Your task to perform on an android device: What's the weather? Image 0: 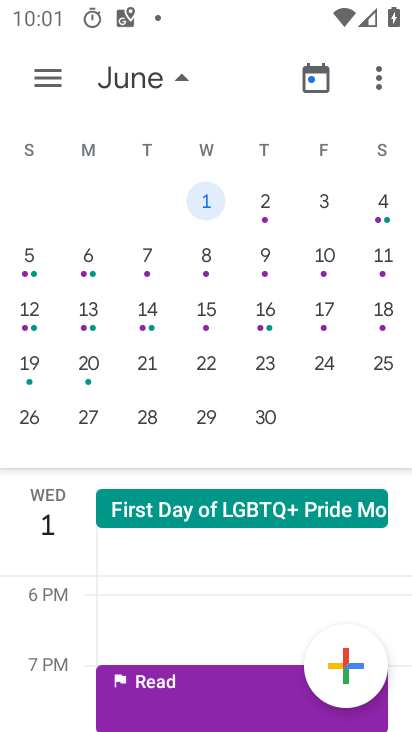
Step 0: press home button
Your task to perform on an android device: What's the weather? Image 1: 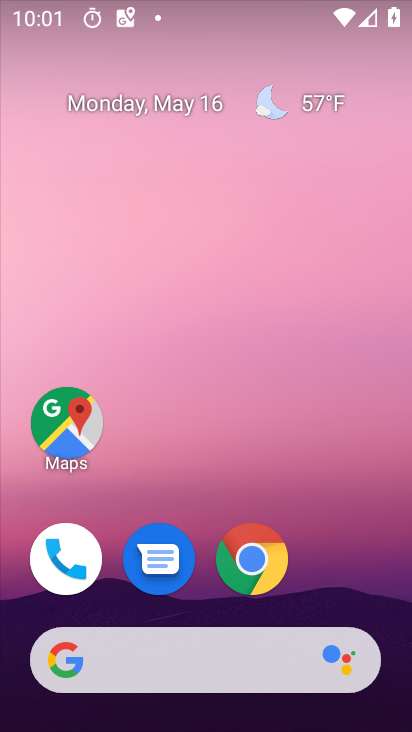
Step 1: click (328, 114)
Your task to perform on an android device: What's the weather? Image 2: 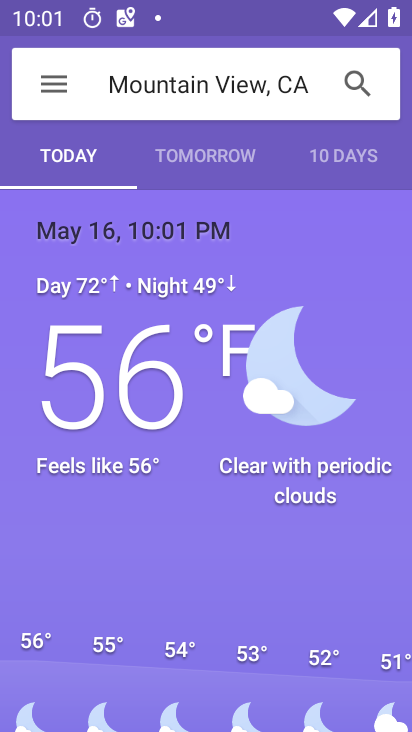
Step 2: task complete